Your task to perform on an android device: toggle airplane mode Image 0: 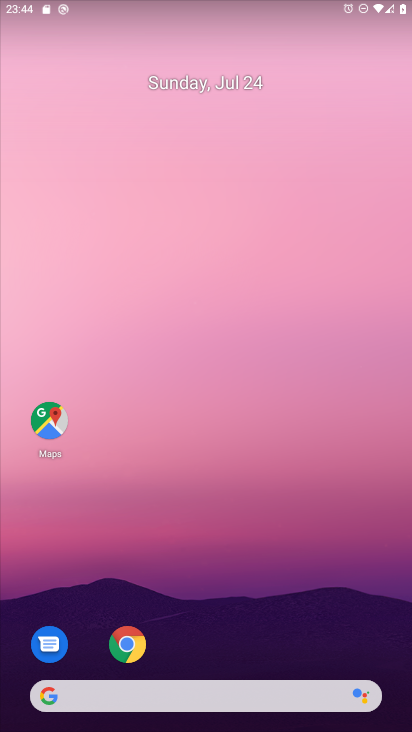
Step 0: drag from (367, 633) to (330, 132)
Your task to perform on an android device: toggle airplane mode Image 1: 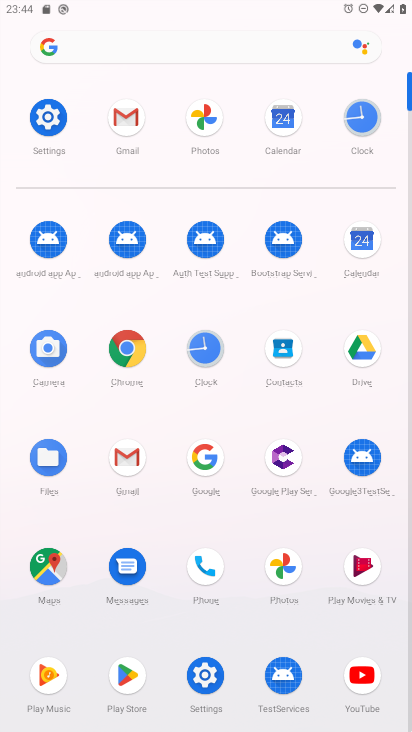
Step 1: click (205, 673)
Your task to perform on an android device: toggle airplane mode Image 2: 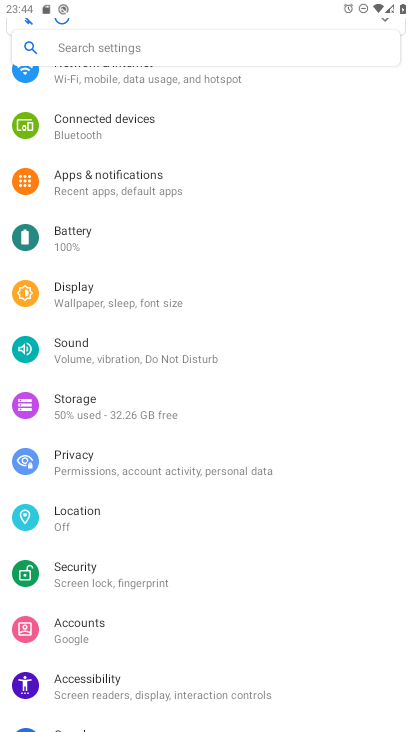
Step 2: drag from (195, 112) to (178, 295)
Your task to perform on an android device: toggle airplane mode Image 3: 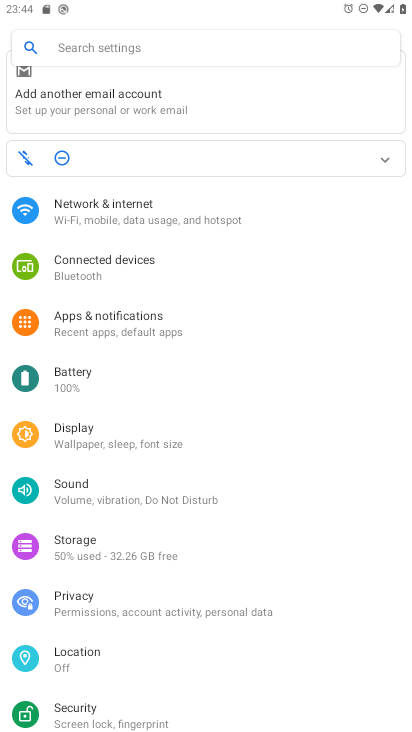
Step 3: click (104, 214)
Your task to perform on an android device: toggle airplane mode Image 4: 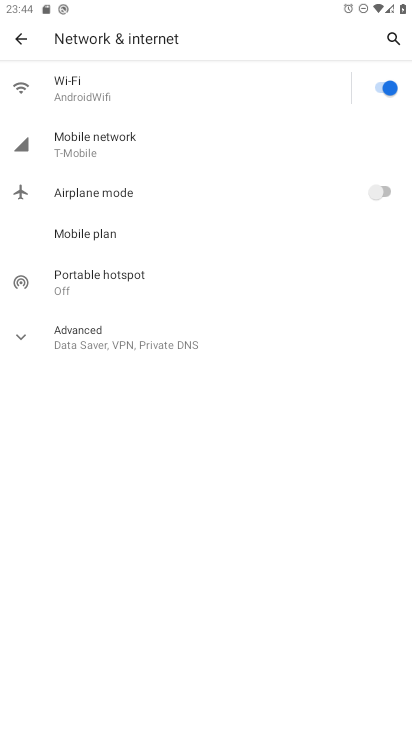
Step 4: click (388, 185)
Your task to perform on an android device: toggle airplane mode Image 5: 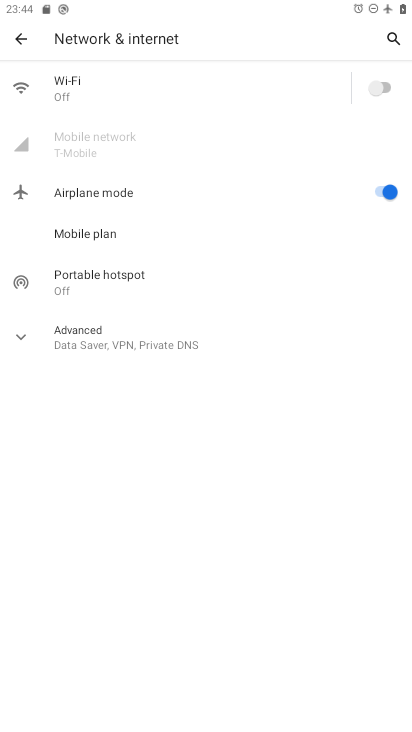
Step 5: task complete